Your task to perform on an android device: allow cookies in the chrome app Image 0: 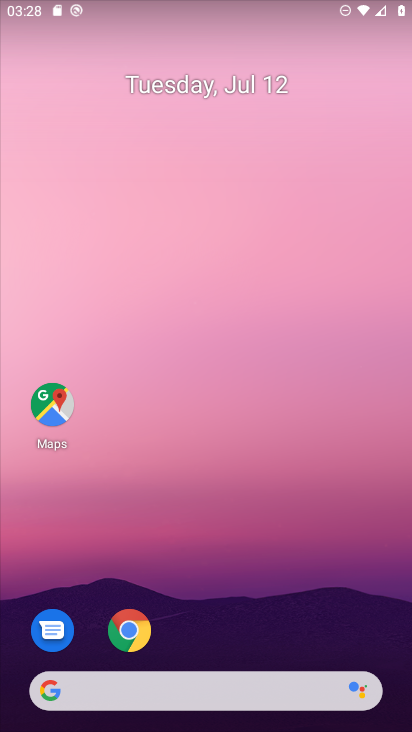
Step 0: click (130, 637)
Your task to perform on an android device: allow cookies in the chrome app Image 1: 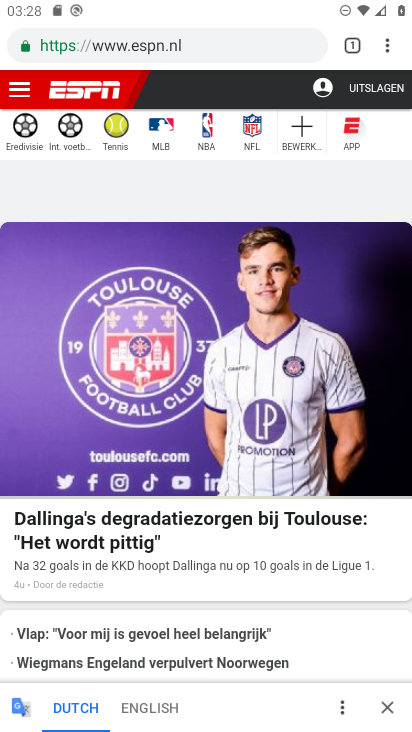
Step 1: click (389, 49)
Your task to perform on an android device: allow cookies in the chrome app Image 2: 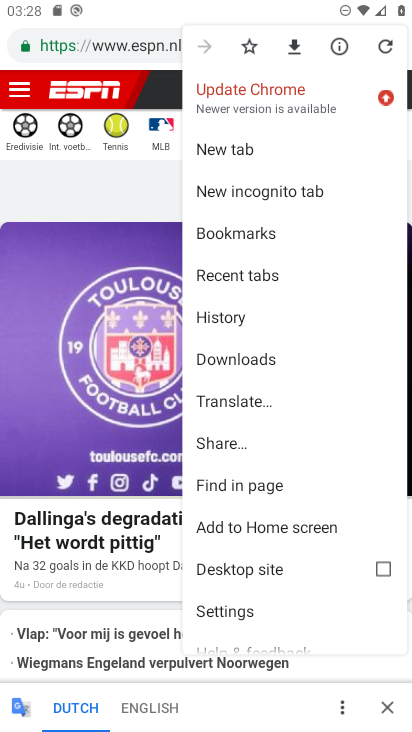
Step 2: click (226, 606)
Your task to perform on an android device: allow cookies in the chrome app Image 3: 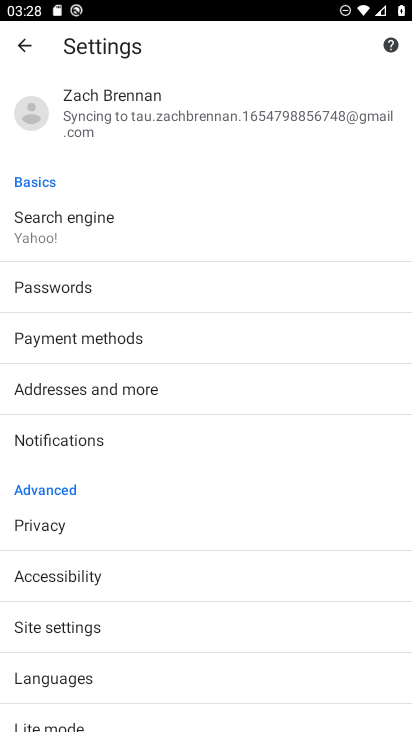
Step 3: click (77, 631)
Your task to perform on an android device: allow cookies in the chrome app Image 4: 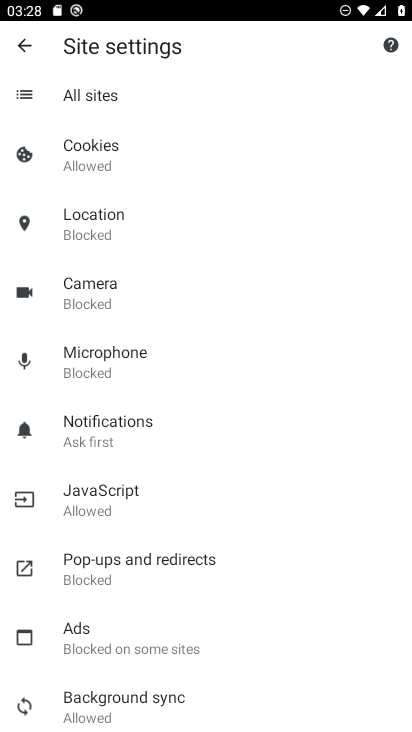
Step 4: click (86, 143)
Your task to perform on an android device: allow cookies in the chrome app Image 5: 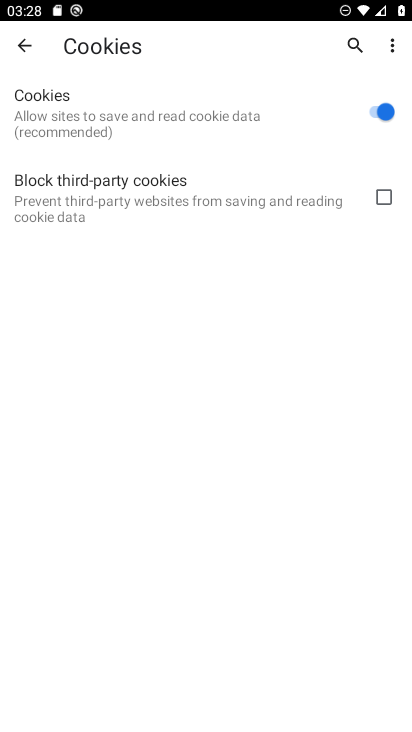
Step 5: task complete